Your task to perform on an android device: all mails in gmail Image 0: 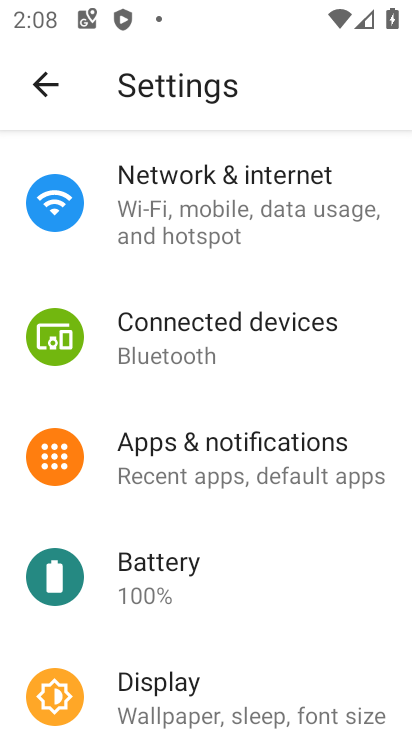
Step 0: press home button
Your task to perform on an android device: all mails in gmail Image 1: 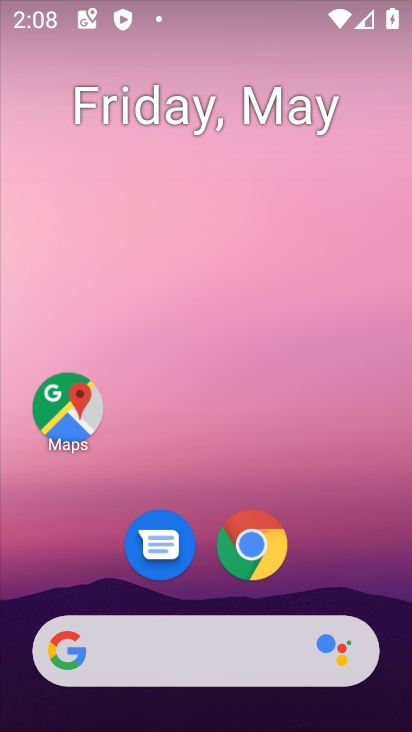
Step 1: drag from (109, 611) to (195, 212)
Your task to perform on an android device: all mails in gmail Image 2: 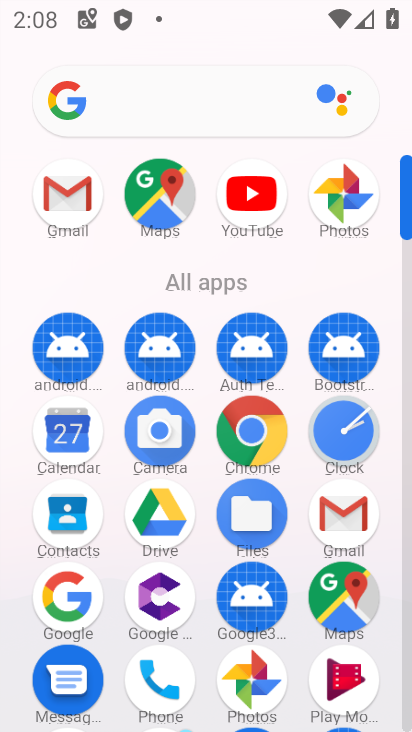
Step 2: click (350, 519)
Your task to perform on an android device: all mails in gmail Image 3: 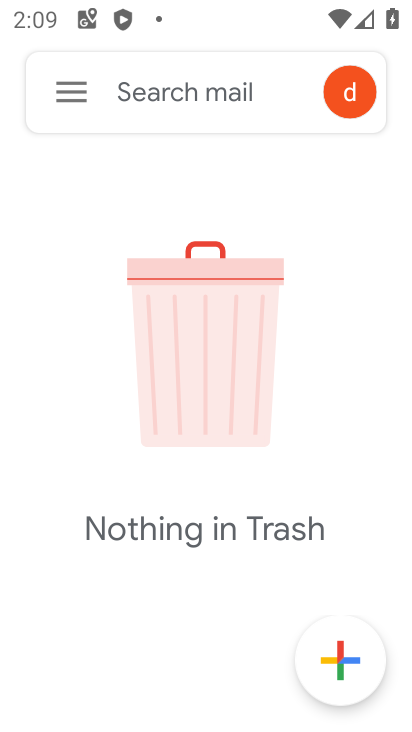
Step 3: click (59, 96)
Your task to perform on an android device: all mails in gmail Image 4: 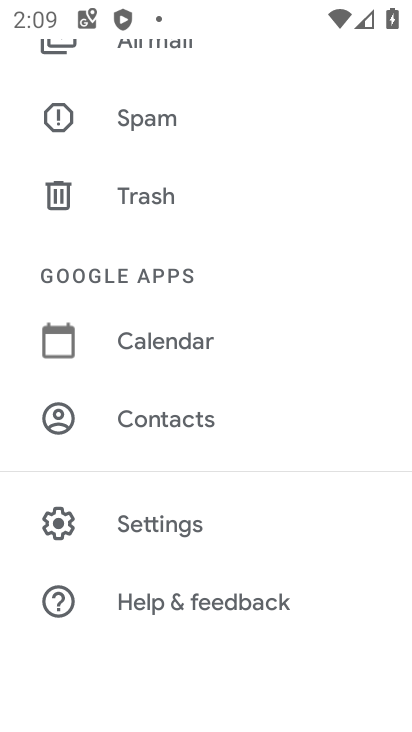
Step 4: drag from (237, 240) to (229, 626)
Your task to perform on an android device: all mails in gmail Image 5: 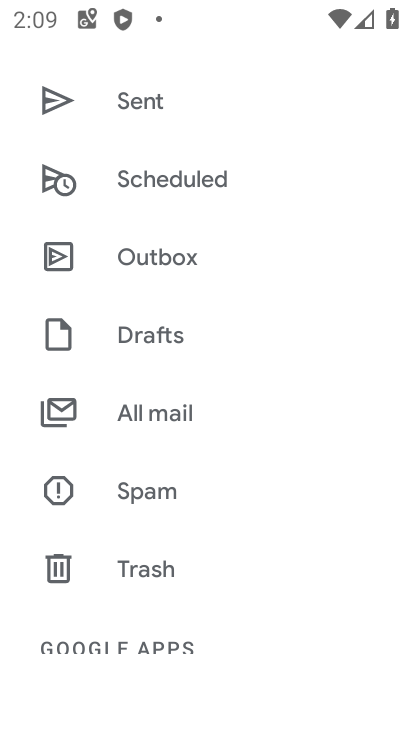
Step 5: click (185, 419)
Your task to perform on an android device: all mails in gmail Image 6: 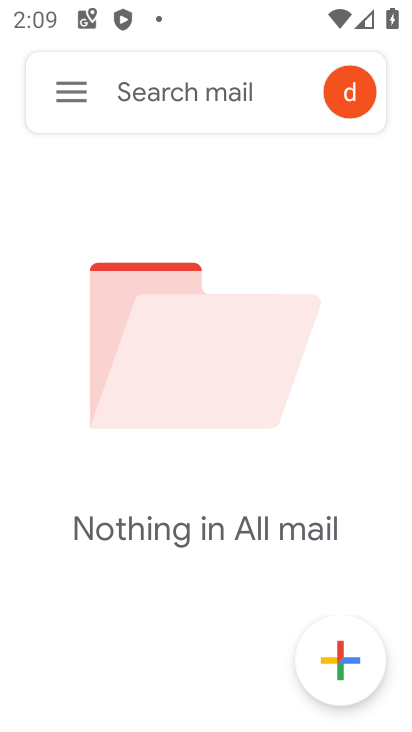
Step 6: task complete